Your task to perform on an android device: What's the weather today? Image 0: 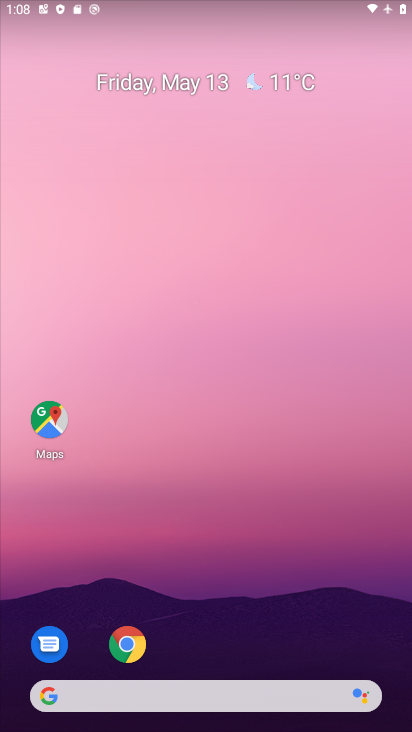
Step 0: click (252, 77)
Your task to perform on an android device: What's the weather today? Image 1: 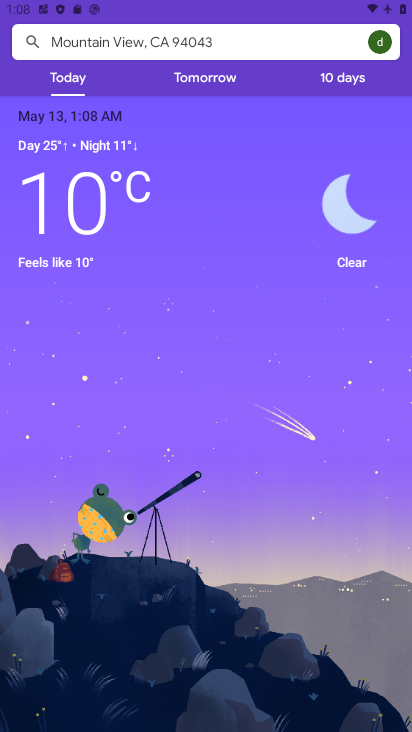
Step 1: task complete